Your task to perform on an android device: Open display settings Image 0: 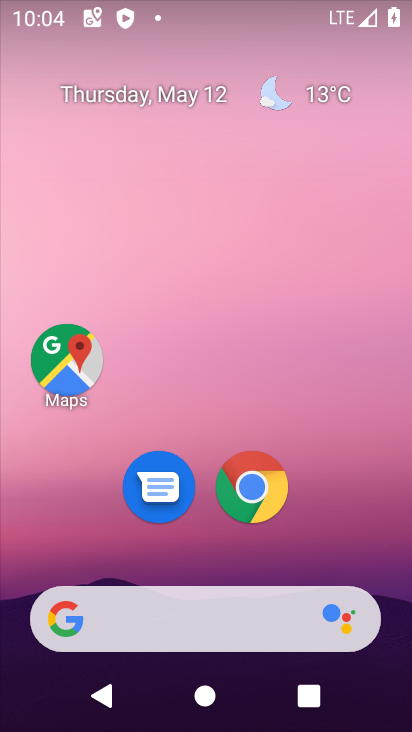
Step 0: drag from (366, 570) to (372, 12)
Your task to perform on an android device: Open display settings Image 1: 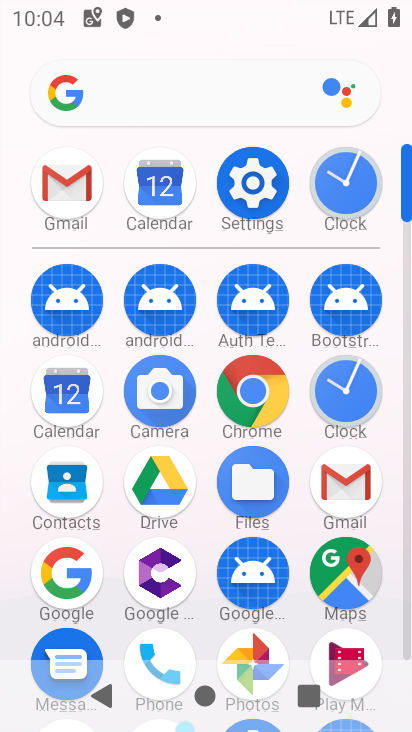
Step 1: click (247, 190)
Your task to perform on an android device: Open display settings Image 2: 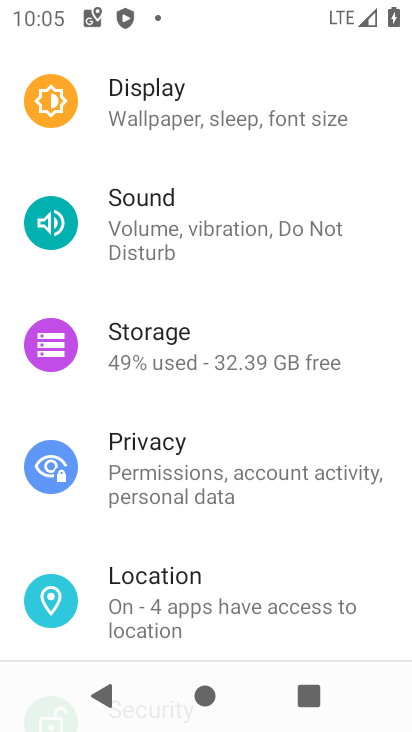
Step 2: click (177, 123)
Your task to perform on an android device: Open display settings Image 3: 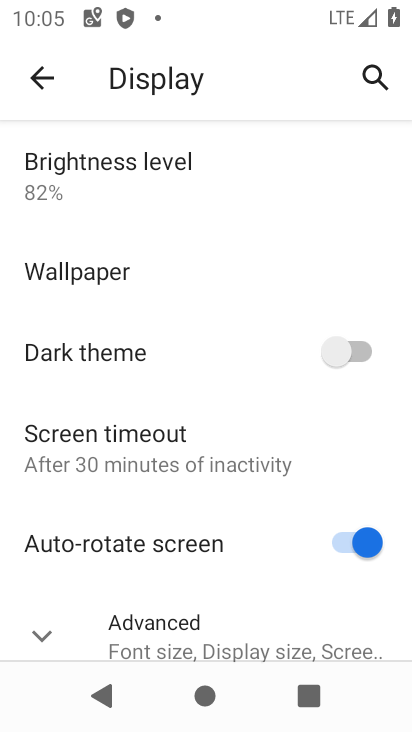
Step 3: task complete